Your task to perform on an android device: change keyboard looks Image 0: 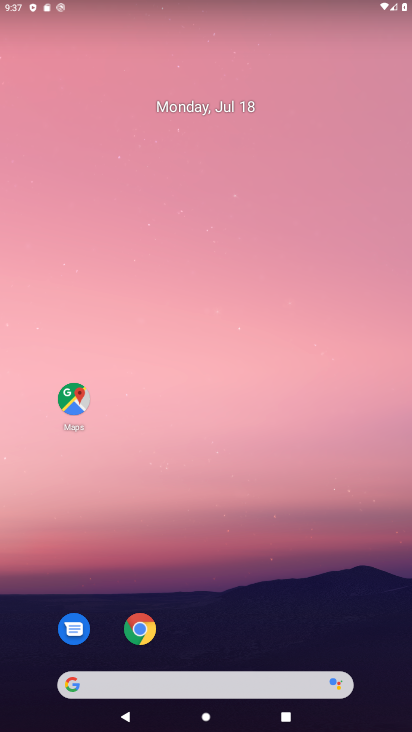
Step 0: drag from (200, 672) to (148, 106)
Your task to perform on an android device: change keyboard looks Image 1: 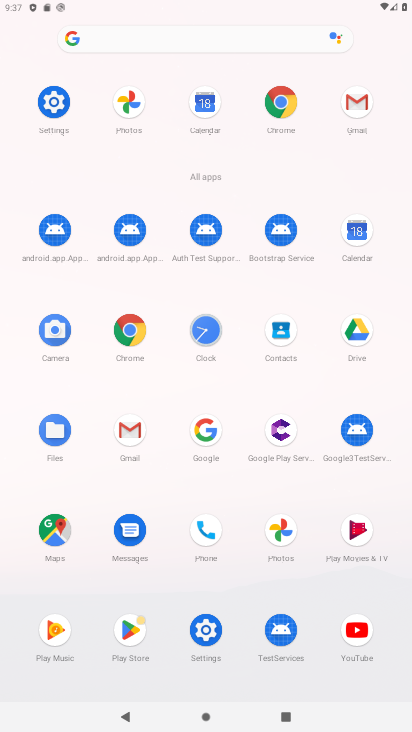
Step 1: click (58, 106)
Your task to perform on an android device: change keyboard looks Image 2: 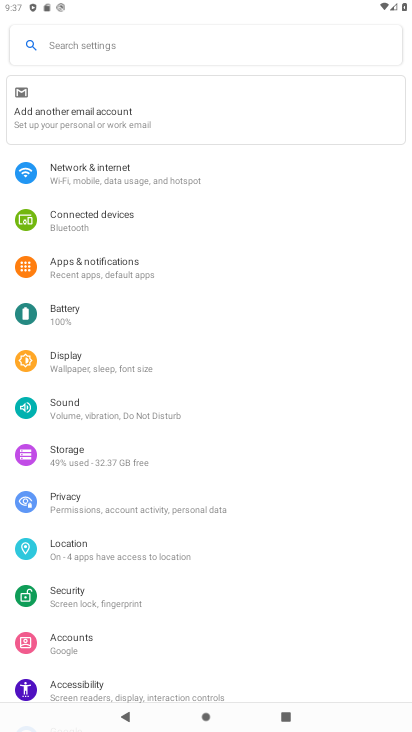
Step 2: drag from (152, 545) to (127, 16)
Your task to perform on an android device: change keyboard looks Image 3: 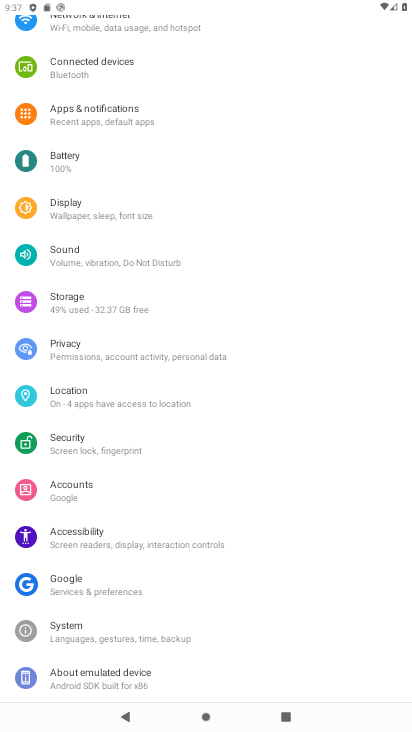
Step 3: click (100, 625)
Your task to perform on an android device: change keyboard looks Image 4: 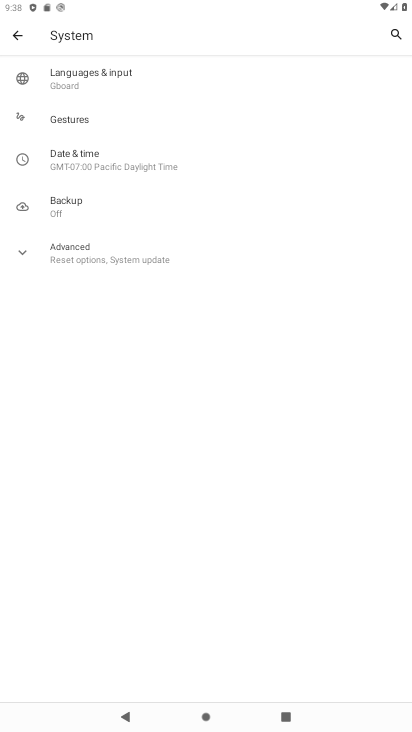
Step 4: click (98, 74)
Your task to perform on an android device: change keyboard looks Image 5: 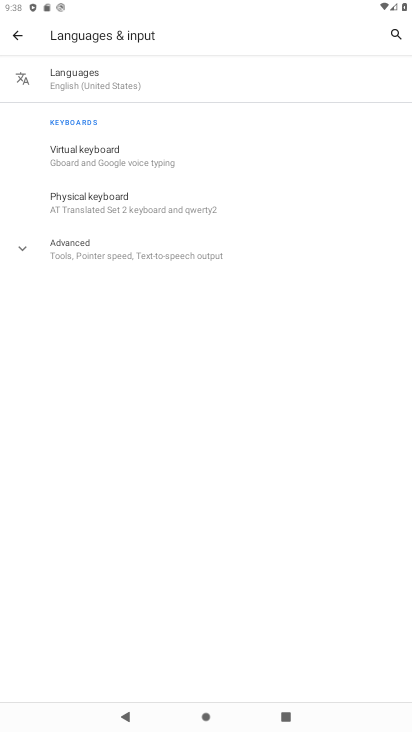
Step 5: click (127, 160)
Your task to perform on an android device: change keyboard looks Image 6: 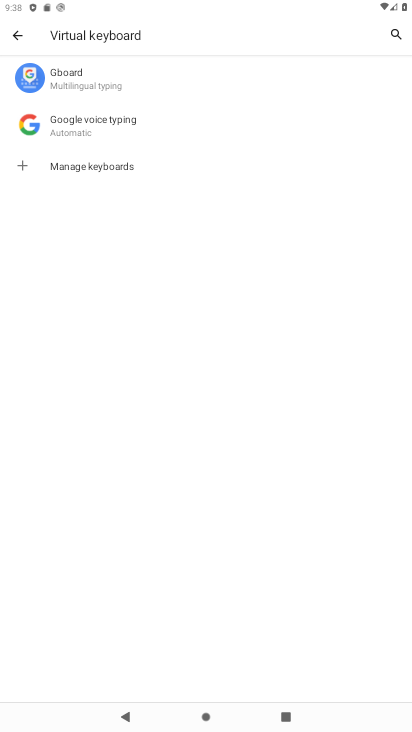
Step 6: click (85, 89)
Your task to perform on an android device: change keyboard looks Image 7: 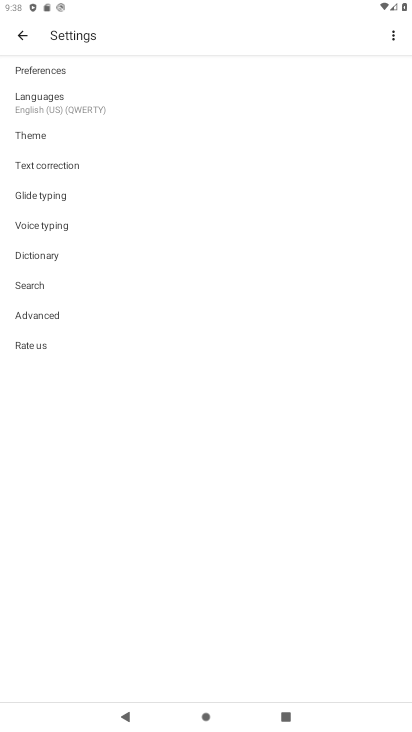
Step 7: click (39, 139)
Your task to perform on an android device: change keyboard looks Image 8: 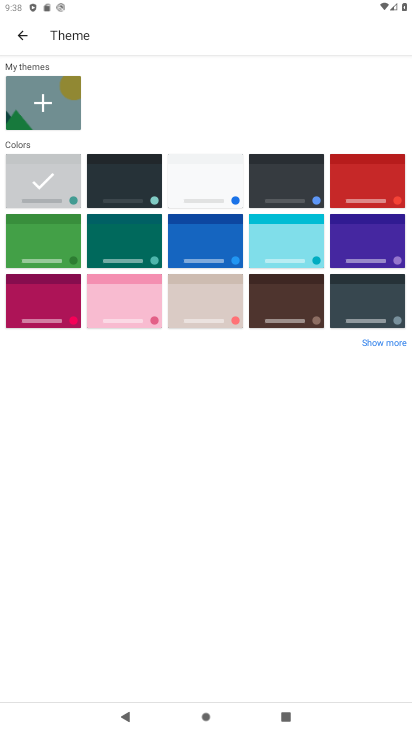
Step 8: click (292, 316)
Your task to perform on an android device: change keyboard looks Image 9: 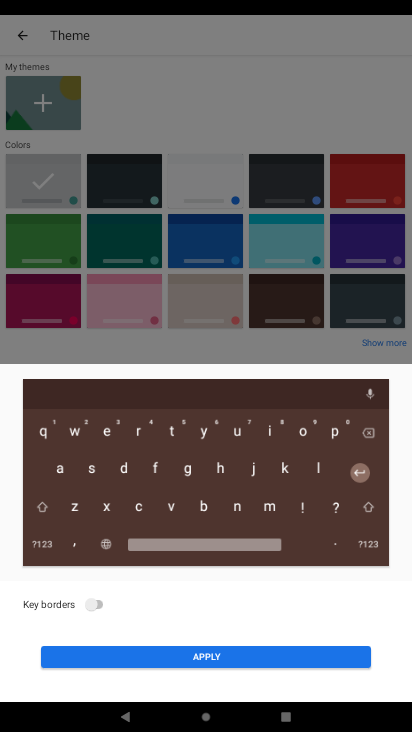
Step 9: click (200, 657)
Your task to perform on an android device: change keyboard looks Image 10: 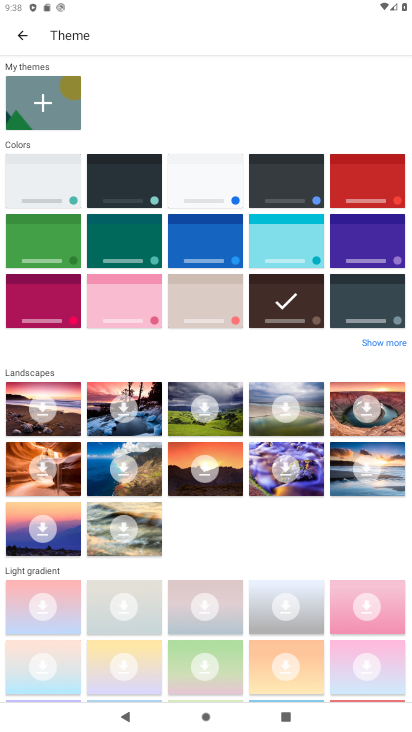
Step 10: task complete